Your task to perform on an android device: snooze an email in the gmail app Image 0: 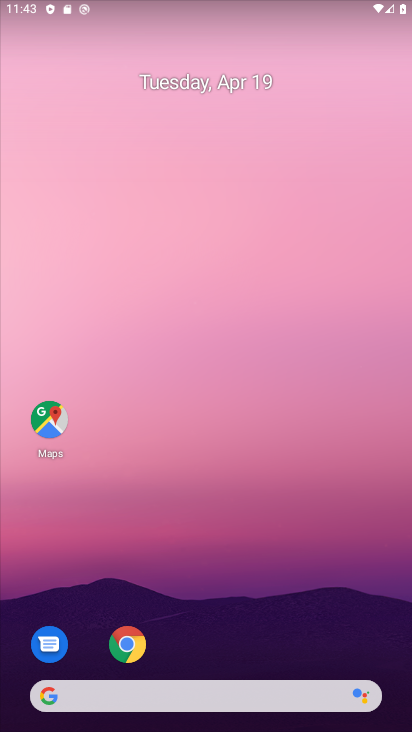
Step 0: drag from (317, 585) to (296, 269)
Your task to perform on an android device: snooze an email in the gmail app Image 1: 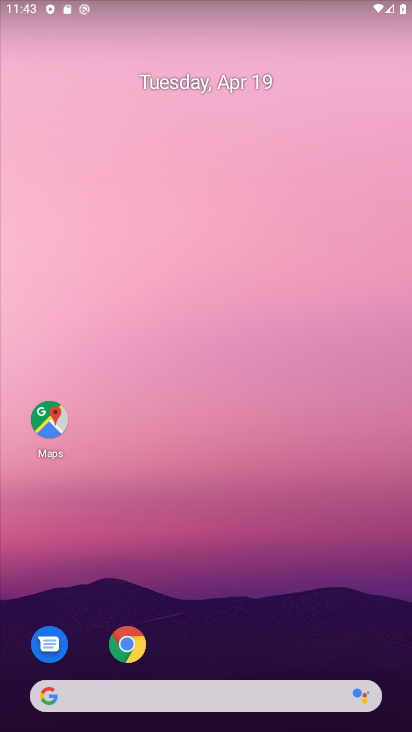
Step 1: drag from (280, 635) to (284, 218)
Your task to perform on an android device: snooze an email in the gmail app Image 2: 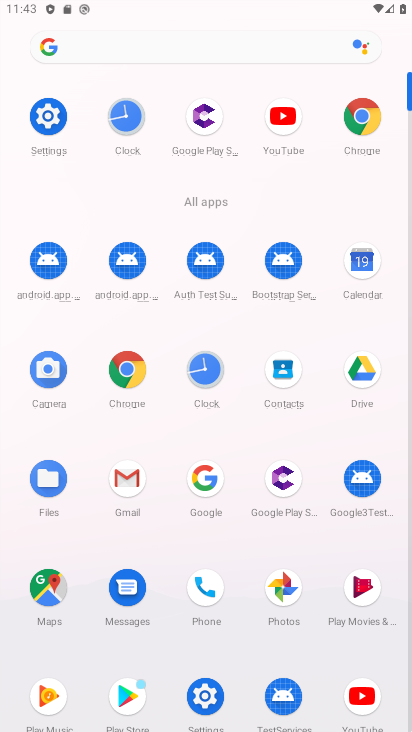
Step 2: click (127, 482)
Your task to perform on an android device: snooze an email in the gmail app Image 3: 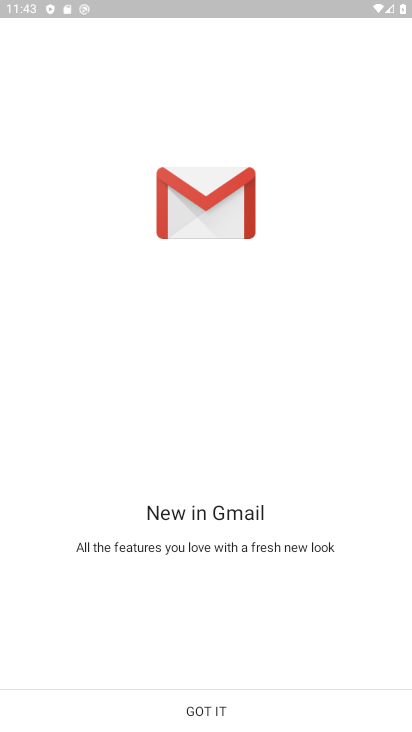
Step 3: click (200, 701)
Your task to perform on an android device: snooze an email in the gmail app Image 4: 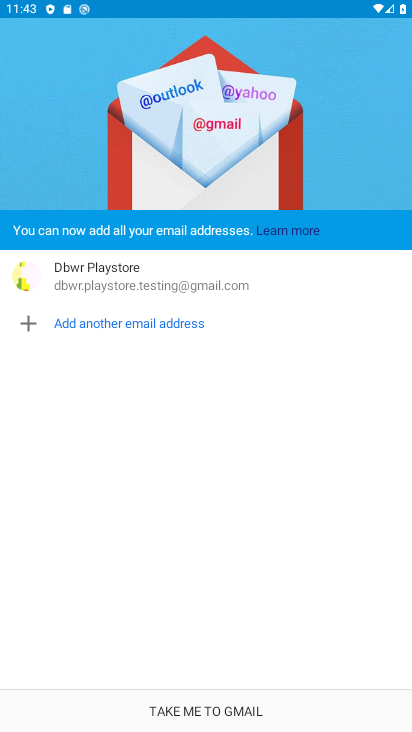
Step 4: click (200, 701)
Your task to perform on an android device: snooze an email in the gmail app Image 5: 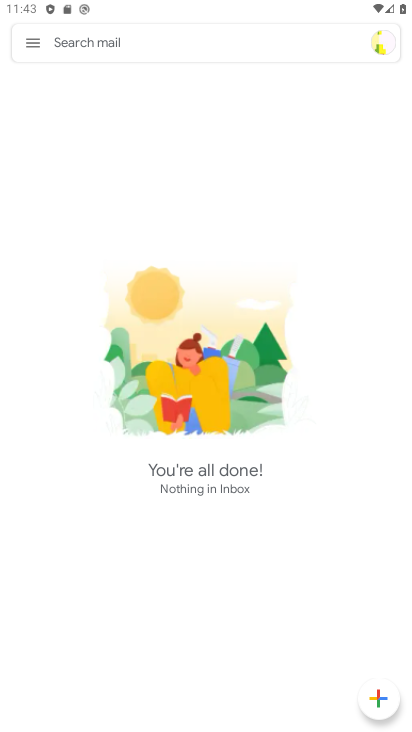
Step 5: click (32, 37)
Your task to perform on an android device: snooze an email in the gmail app Image 6: 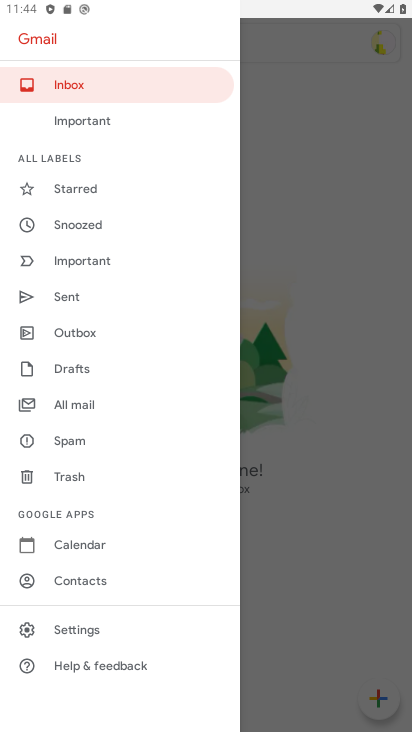
Step 6: click (81, 397)
Your task to perform on an android device: snooze an email in the gmail app Image 7: 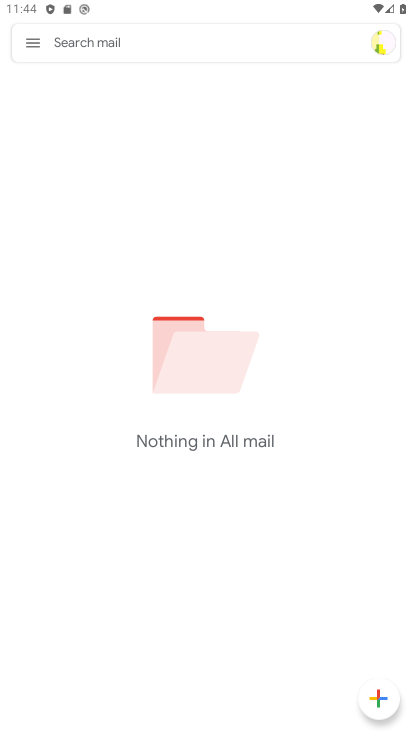
Step 7: task complete